Your task to perform on an android device: stop showing notifications on the lock screen Image 0: 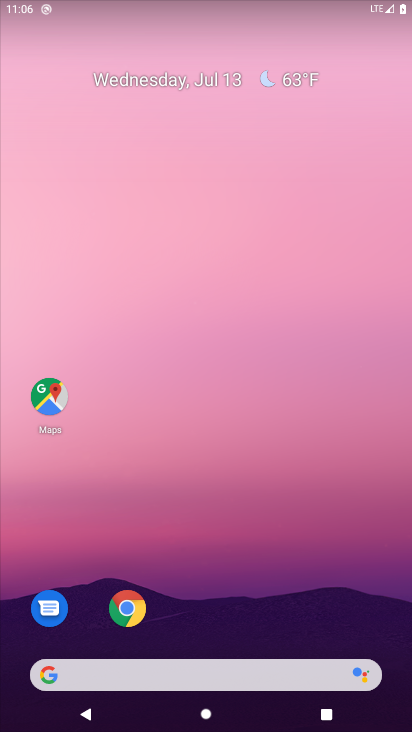
Step 0: drag from (305, 582) to (296, 115)
Your task to perform on an android device: stop showing notifications on the lock screen Image 1: 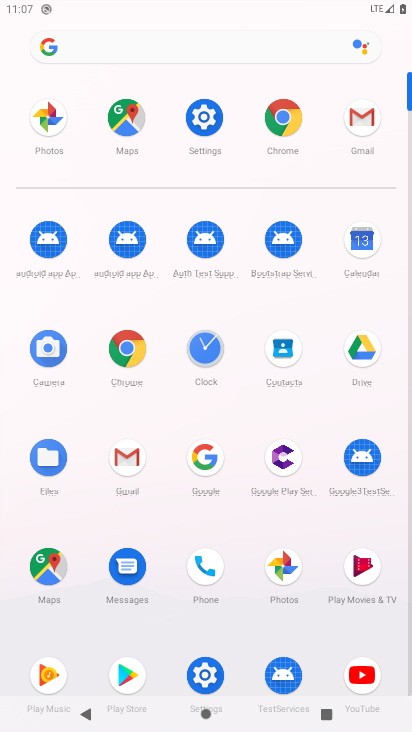
Step 1: click (201, 676)
Your task to perform on an android device: stop showing notifications on the lock screen Image 2: 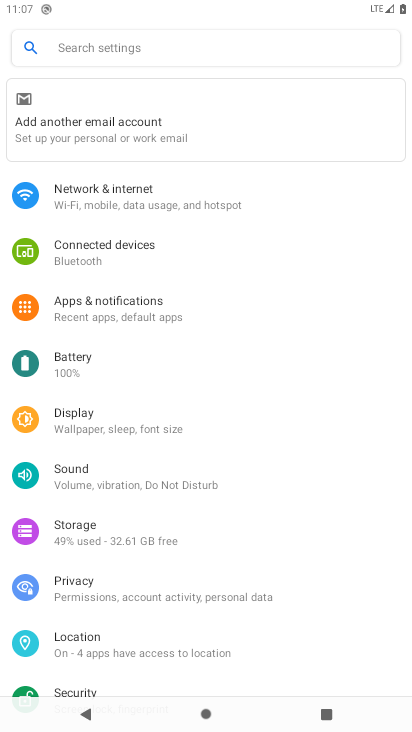
Step 2: drag from (191, 552) to (229, 289)
Your task to perform on an android device: stop showing notifications on the lock screen Image 3: 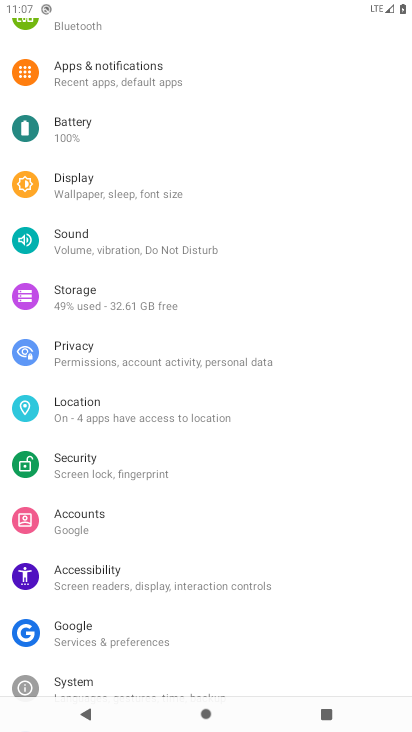
Step 3: drag from (202, 557) to (206, 329)
Your task to perform on an android device: stop showing notifications on the lock screen Image 4: 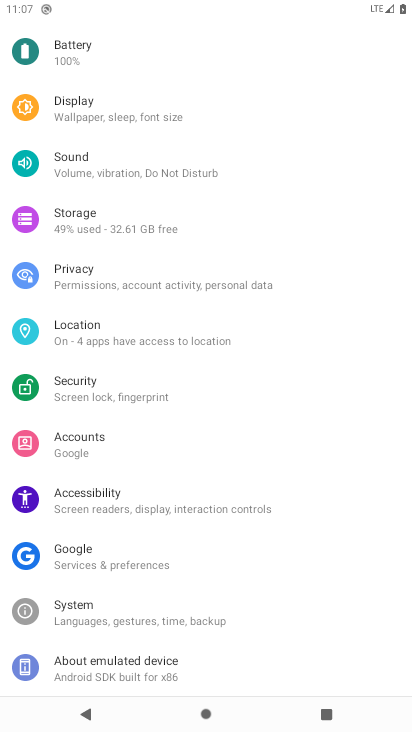
Step 4: drag from (179, 75) to (135, 405)
Your task to perform on an android device: stop showing notifications on the lock screen Image 5: 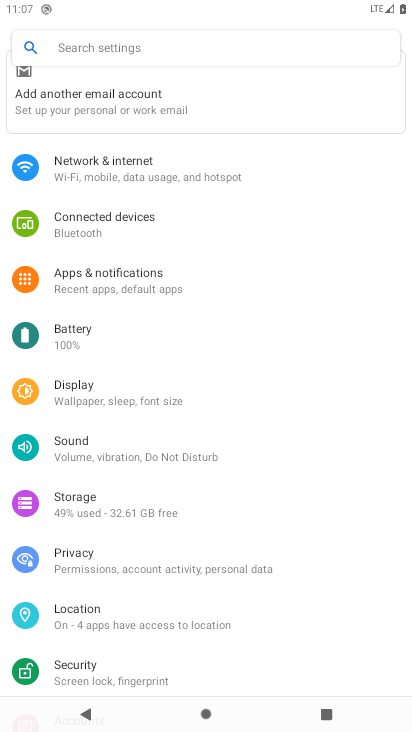
Step 5: click (122, 272)
Your task to perform on an android device: stop showing notifications on the lock screen Image 6: 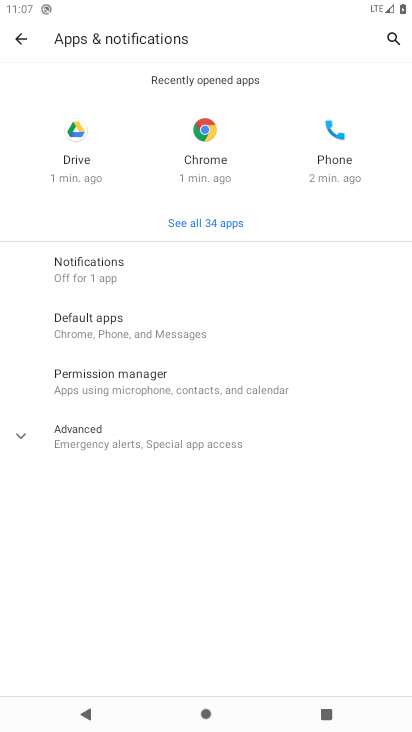
Step 6: click (103, 255)
Your task to perform on an android device: stop showing notifications on the lock screen Image 7: 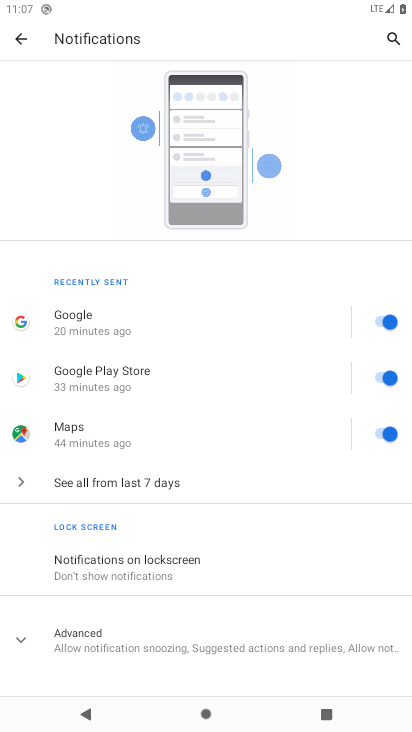
Step 7: click (162, 577)
Your task to perform on an android device: stop showing notifications on the lock screen Image 8: 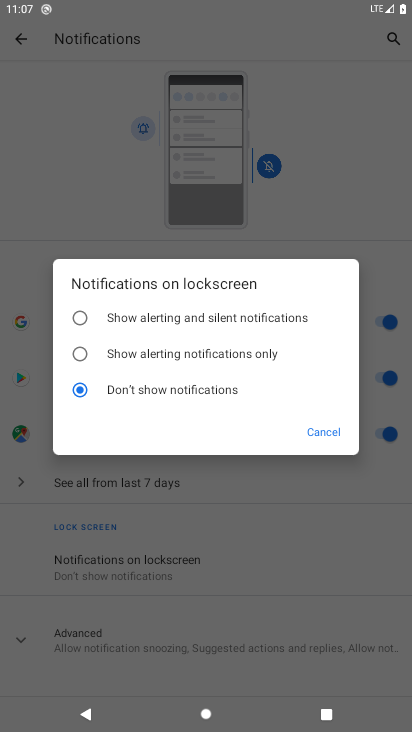
Step 8: click (171, 320)
Your task to perform on an android device: stop showing notifications on the lock screen Image 9: 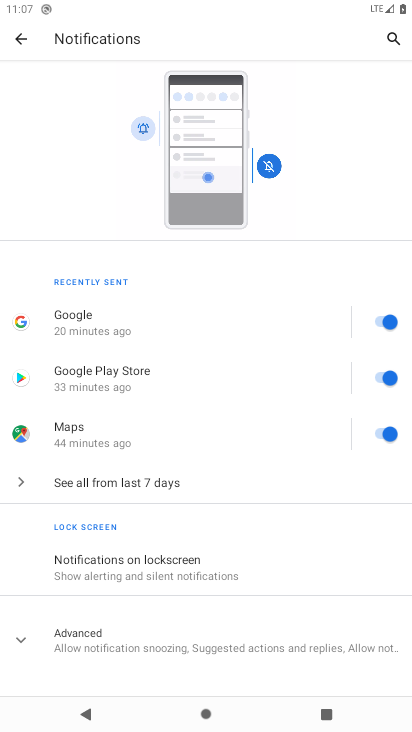
Step 9: task complete